Your task to perform on an android device: turn on javascript in the chrome app Image 0: 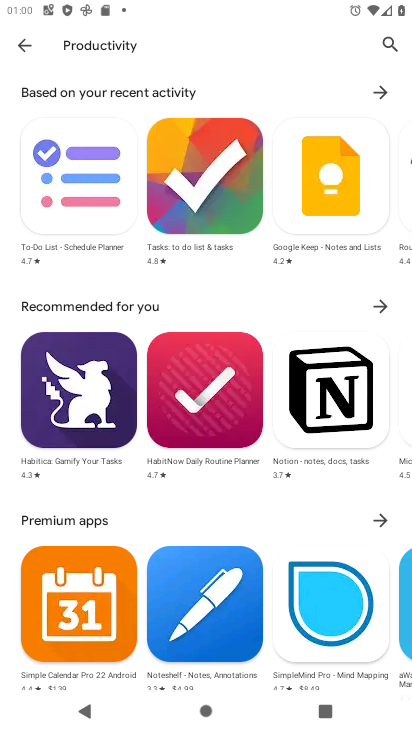
Step 0: press home button
Your task to perform on an android device: turn on javascript in the chrome app Image 1: 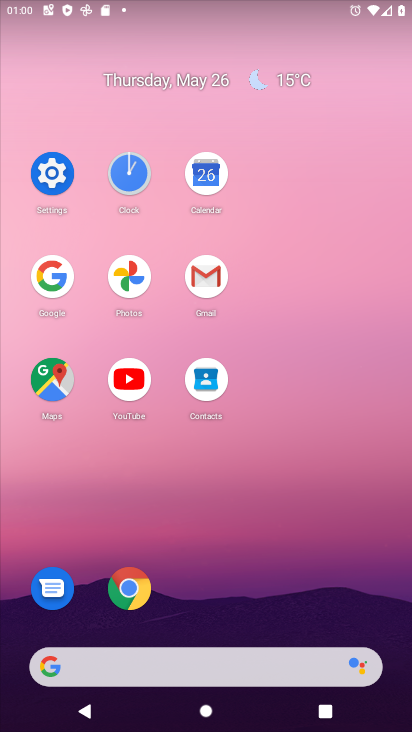
Step 1: click (132, 582)
Your task to perform on an android device: turn on javascript in the chrome app Image 2: 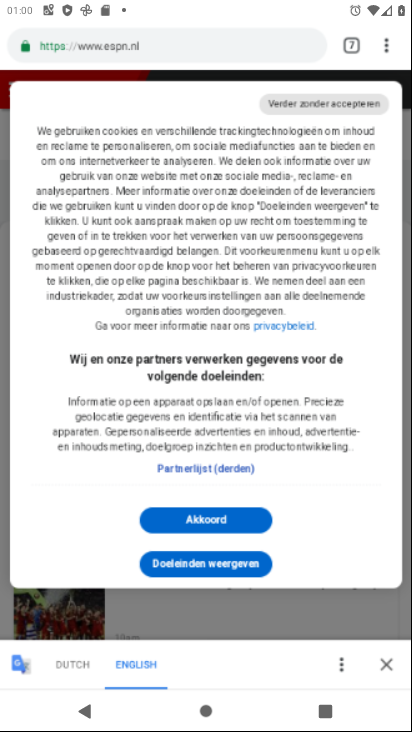
Step 2: click (391, 37)
Your task to perform on an android device: turn on javascript in the chrome app Image 3: 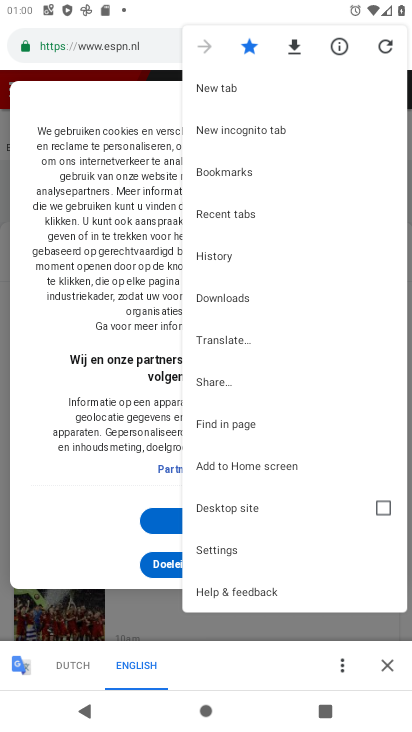
Step 3: click (251, 555)
Your task to perform on an android device: turn on javascript in the chrome app Image 4: 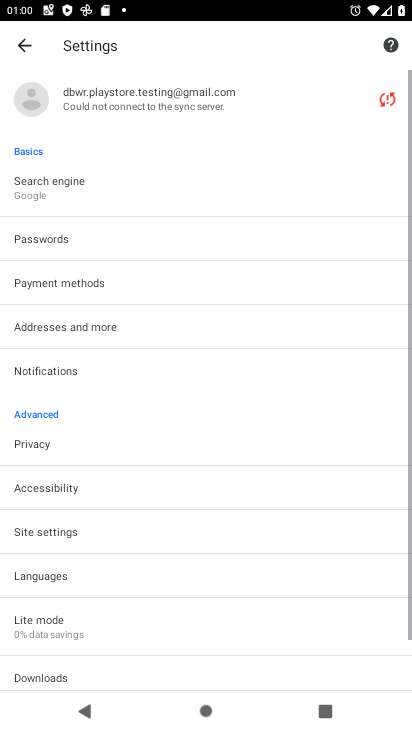
Step 4: drag from (251, 555) to (331, 206)
Your task to perform on an android device: turn on javascript in the chrome app Image 5: 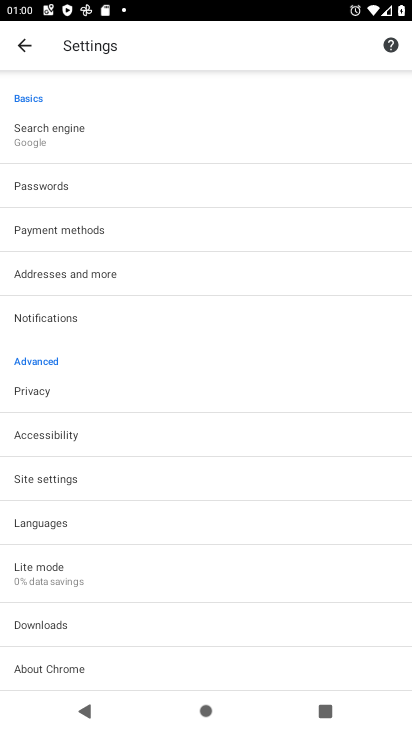
Step 5: click (118, 475)
Your task to perform on an android device: turn on javascript in the chrome app Image 6: 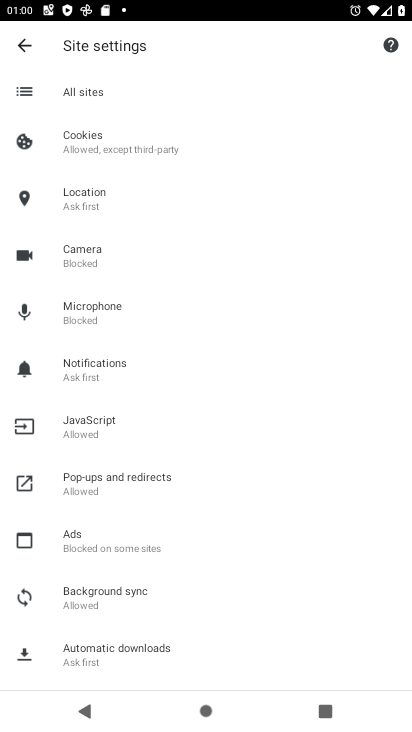
Step 6: click (176, 441)
Your task to perform on an android device: turn on javascript in the chrome app Image 7: 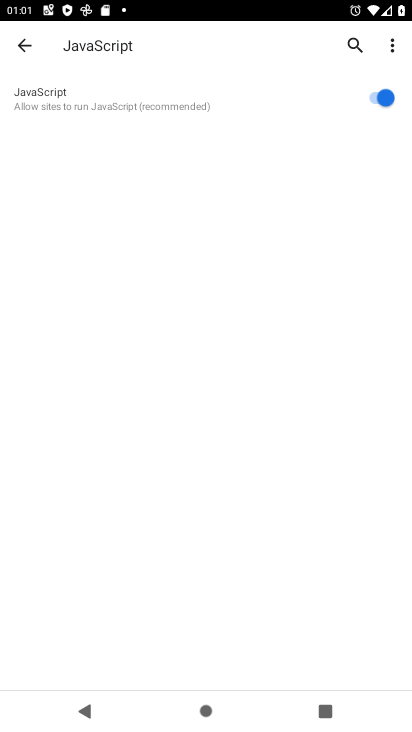
Step 7: task complete